Your task to perform on an android device: turn off smart reply in the gmail app Image 0: 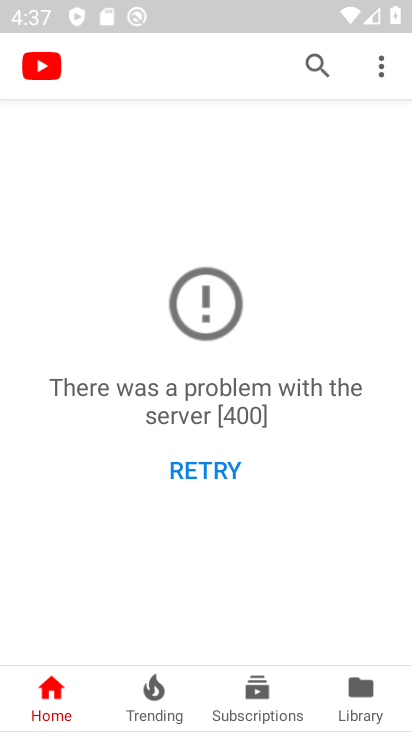
Step 0: press home button
Your task to perform on an android device: turn off smart reply in the gmail app Image 1: 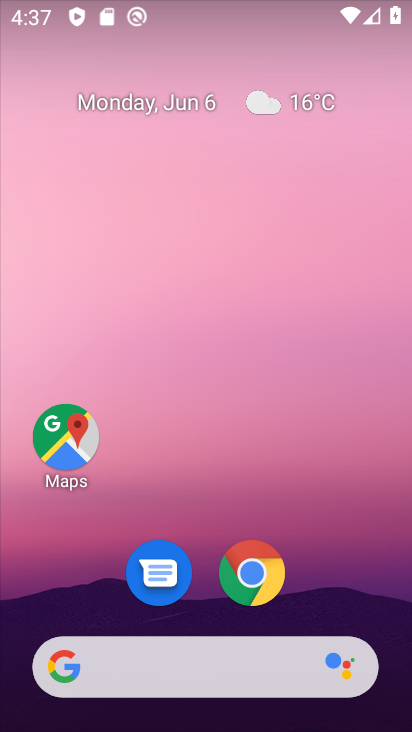
Step 1: drag from (328, 557) to (231, 11)
Your task to perform on an android device: turn off smart reply in the gmail app Image 2: 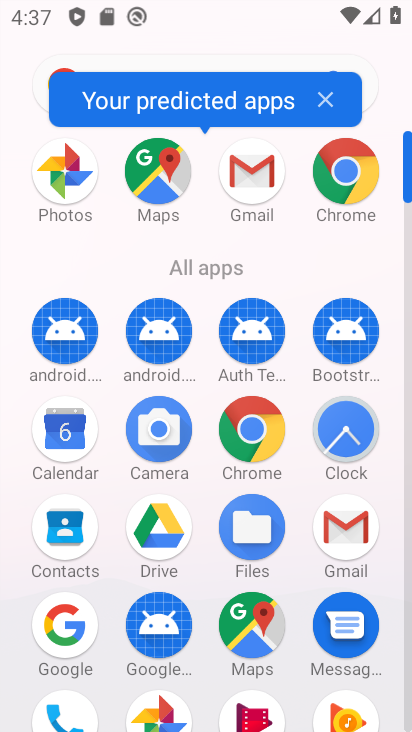
Step 2: click (347, 524)
Your task to perform on an android device: turn off smart reply in the gmail app Image 3: 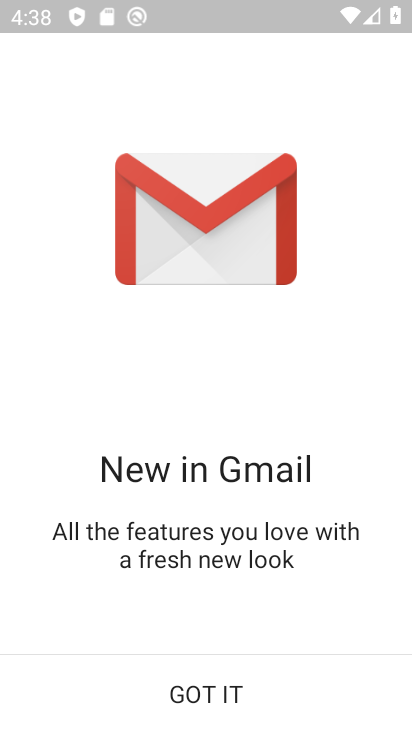
Step 3: click (188, 697)
Your task to perform on an android device: turn off smart reply in the gmail app Image 4: 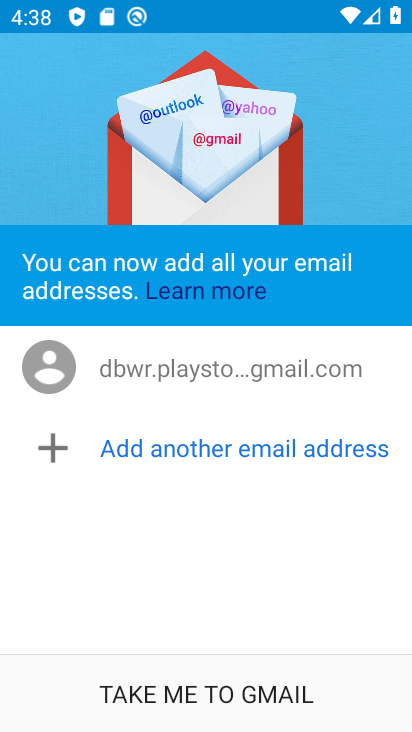
Step 4: click (188, 697)
Your task to perform on an android device: turn off smart reply in the gmail app Image 5: 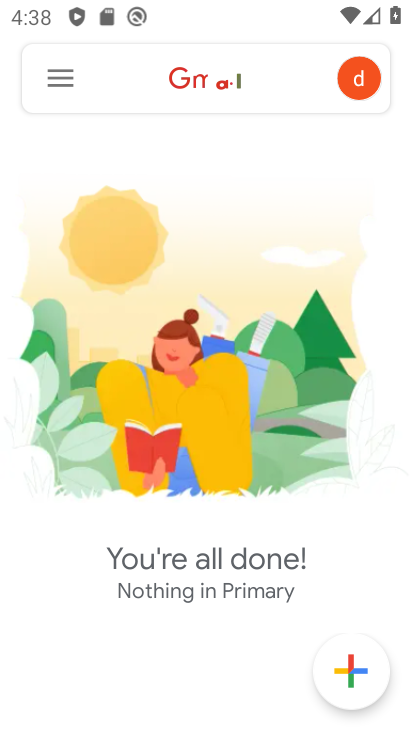
Step 5: click (62, 73)
Your task to perform on an android device: turn off smart reply in the gmail app Image 6: 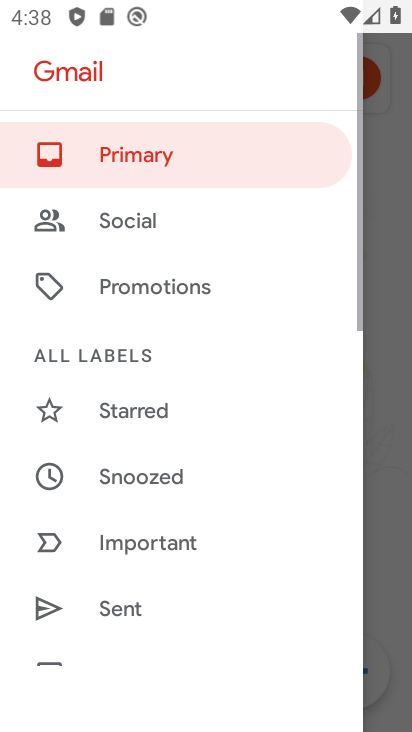
Step 6: drag from (134, 528) to (227, 136)
Your task to perform on an android device: turn off smart reply in the gmail app Image 7: 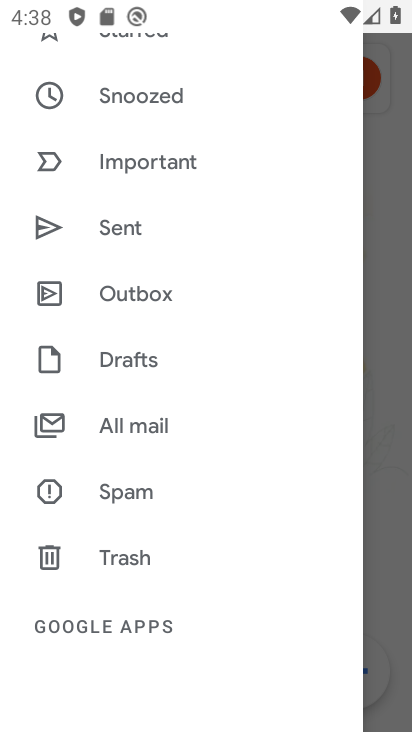
Step 7: drag from (131, 593) to (239, 282)
Your task to perform on an android device: turn off smart reply in the gmail app Image 8: 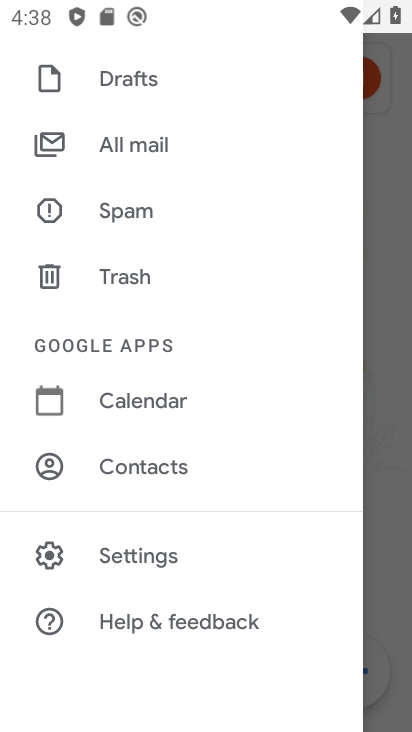
Step 8: click (146, 558)
Your task to perform on an android device: turn off smart reply in the gmail app Image 9: 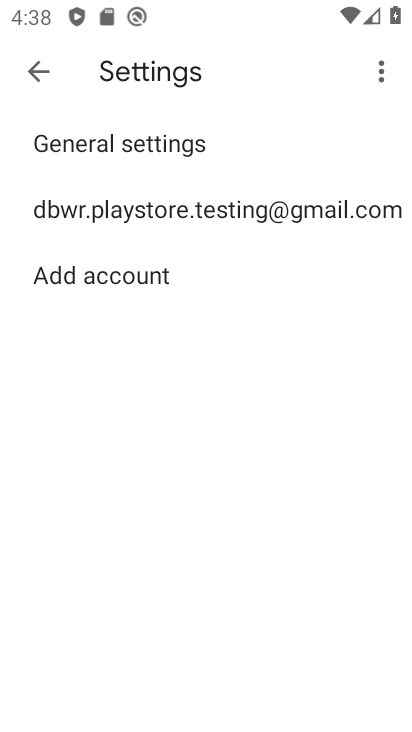
Step 9: click (166, 205)
Your task to perform on an android device: turn off smart reply in the gmail app Image 10: 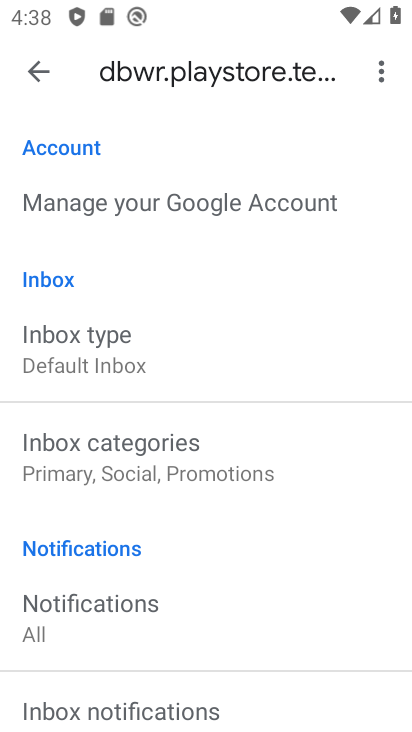
Step 10: drag from (177, 642) to (167, 79)
Your task to perform on an android device: turn off smart reply in the gmail app Image 11: 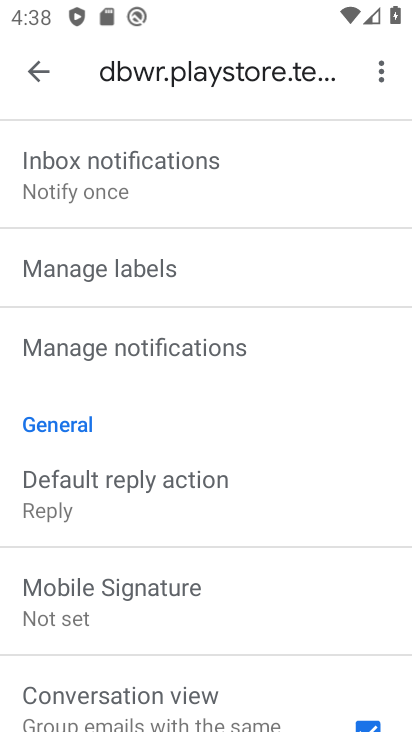
Step 11: drag from (180, 542) to (221, 198)
Your task to perform on an android device: turn off smart reply in the gmail app Image 12: 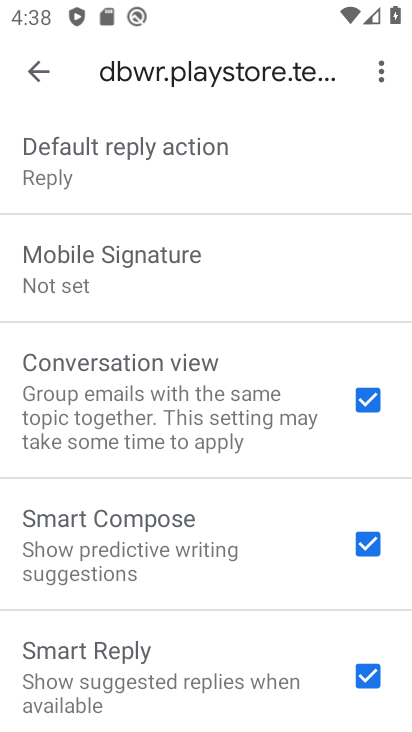
Step 12: drag from (173, 642) to (209, 469)
Your task to perform on an android device: turn off smart reply in the gmail app Image 13: 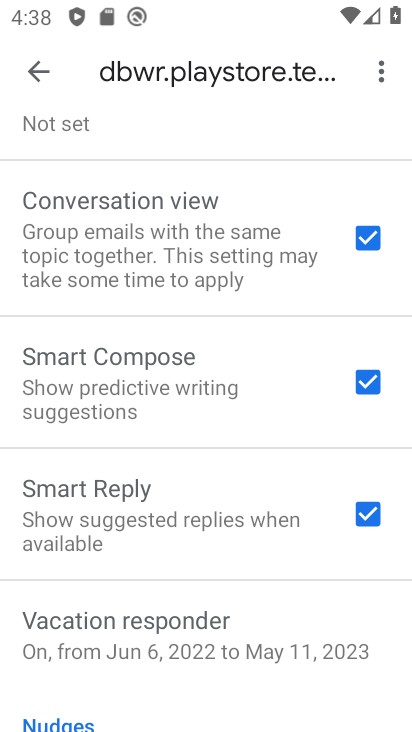
Step 13: click (365, 522)
Your task to perform on an android device: turn off smart reply in the gmail app Image 14: 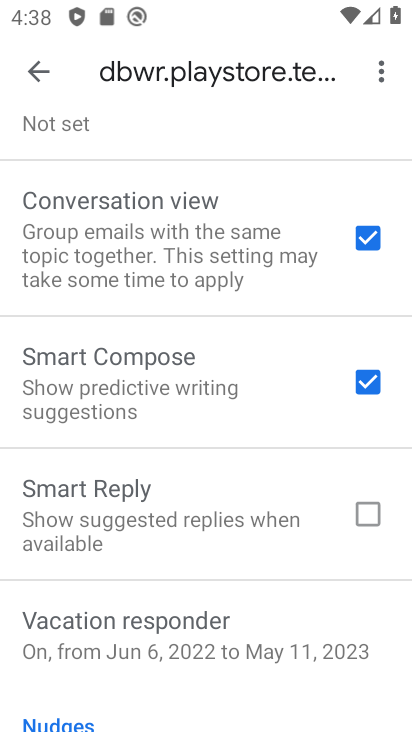
Step 14: task complete